Your task to perform on an android device: Open Amazon Image 0: 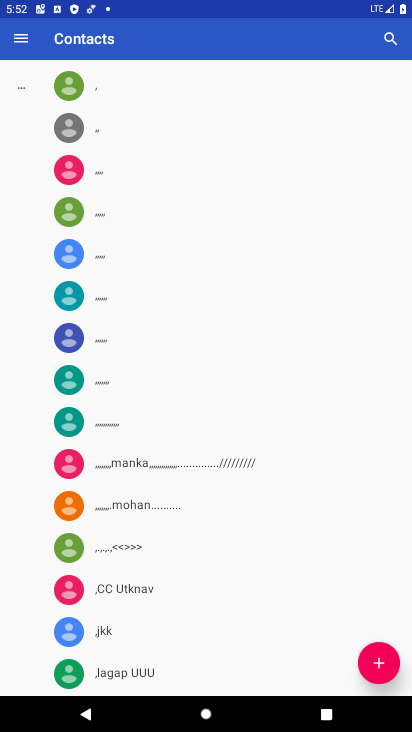
Step 0: press home button
Your task to perform on an android device: Open Amazon Image 1: 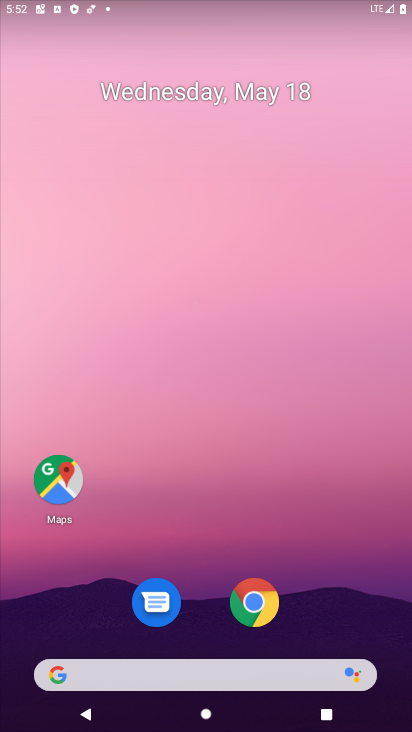
Step 1: drag from (275, 644) to (345, 6)
Your task to perform on an android device: Open Amazon Image 2: 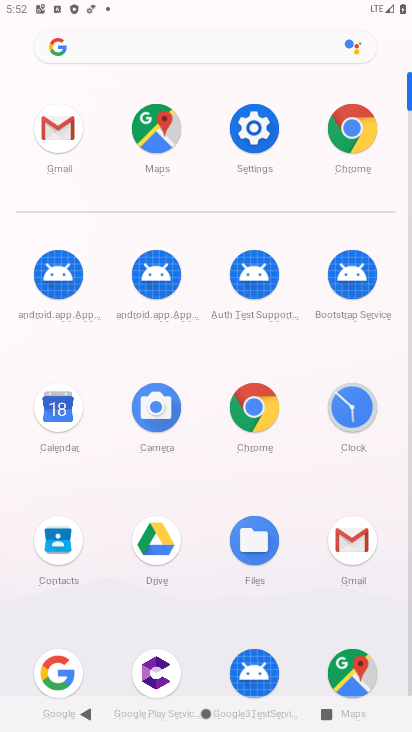
Step 2: click (263, 414)
Your task to perform on an android device: Open Amazon Image 3: 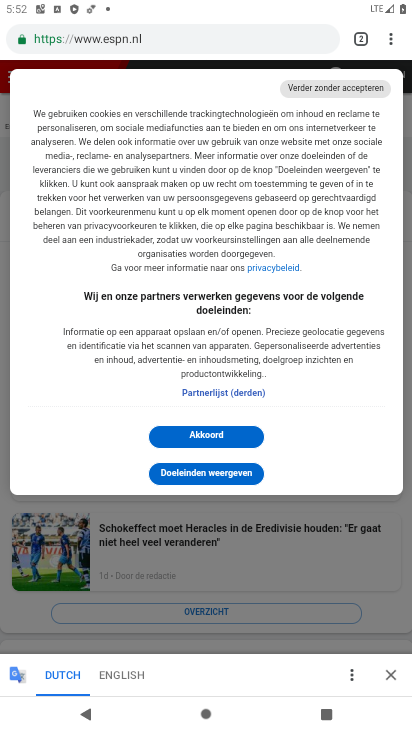
Step 3: click (134, 36)
Your task to perform on an android device: Open Amazon Image 4: 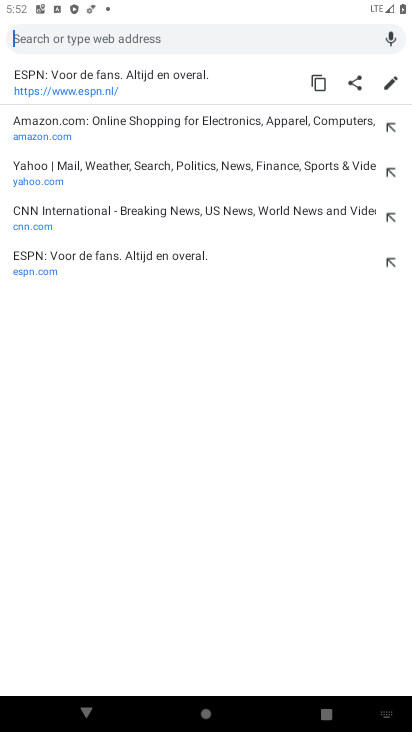
Step 4: click (322, 132)
Your task to perform on an android device: Open Amazon Image 5: 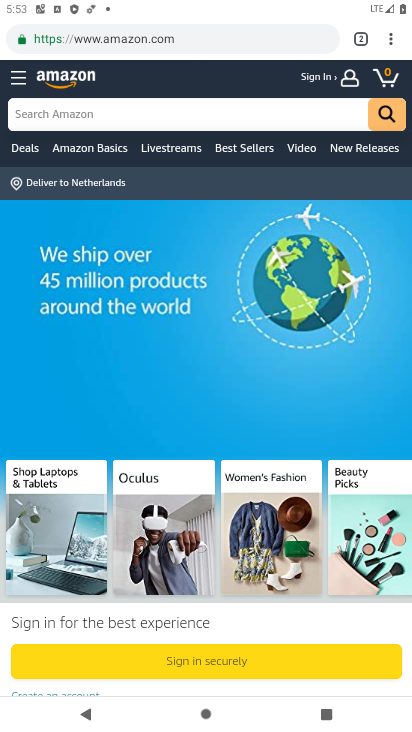
Step 5: task complete